Your task to perform on an android device: Clear the shopping cart on newegg. Search for sony triple a on newegg, select the first entry, and add it to the cart. Image 0: 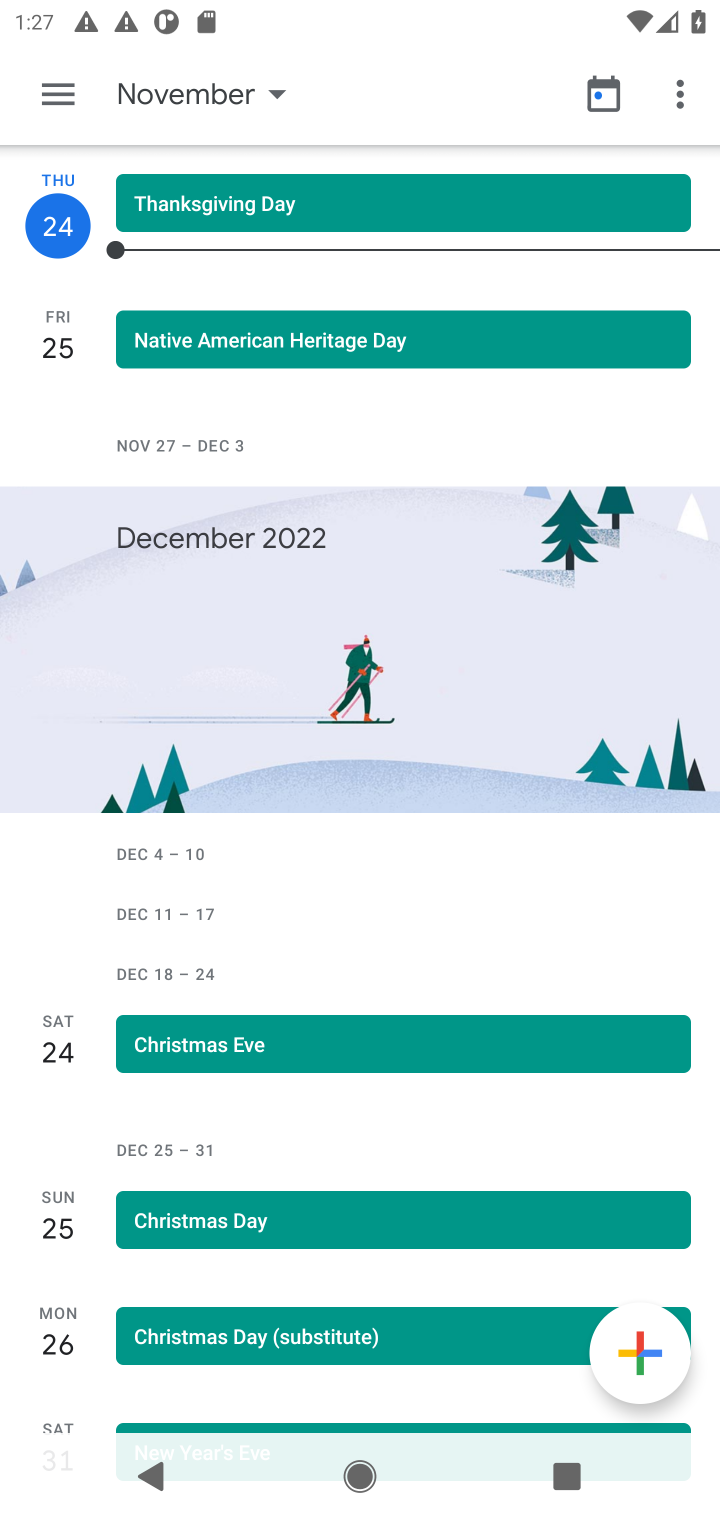
Step 0: task complete